Your task to perform on an android device: toggle airplane mode Image 0: 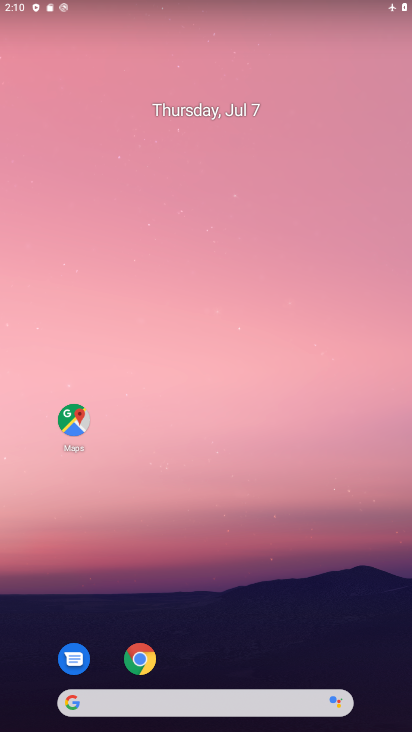
Step 0: drag from (232, 623) to (129, 91)
Your task to perform on an android device: toggle airplane mode Image 1: 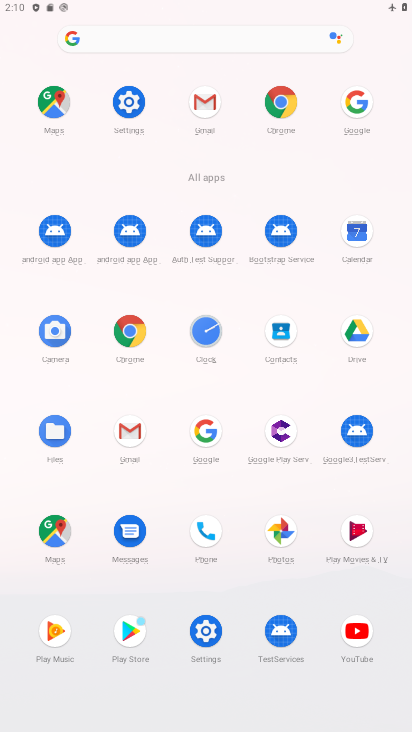
Step 1: click (123, 109)
Your task to perform on an android device: toggle airplane mode Image 2: 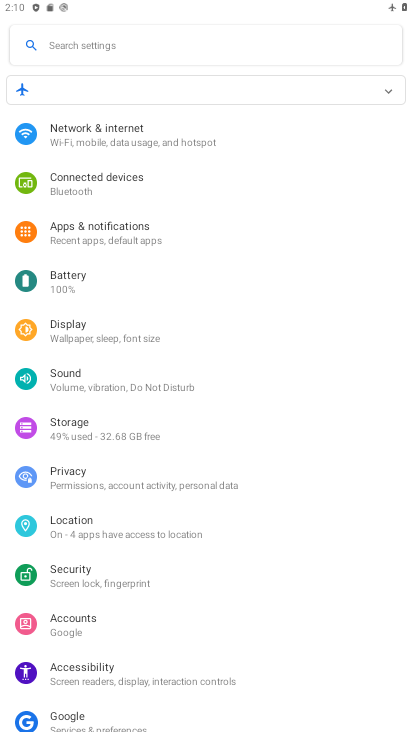
Step 2: click (117, 125)
Your task to perform on an android device: toggle airplane mode Image 3: 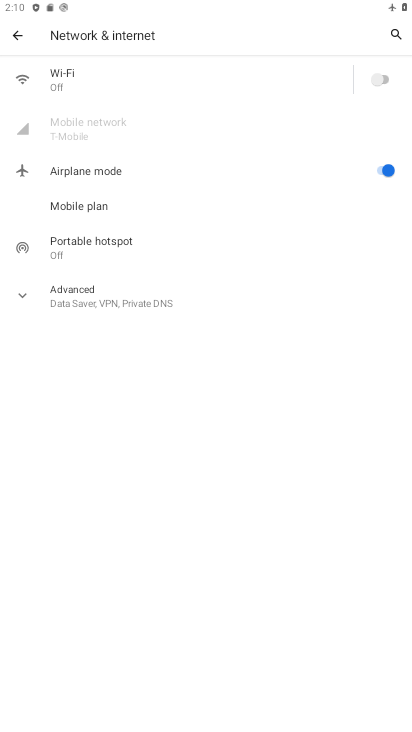
Step 3: click (385, 171)
Your task to perform on an android device: toggle airplane mode Image 4: 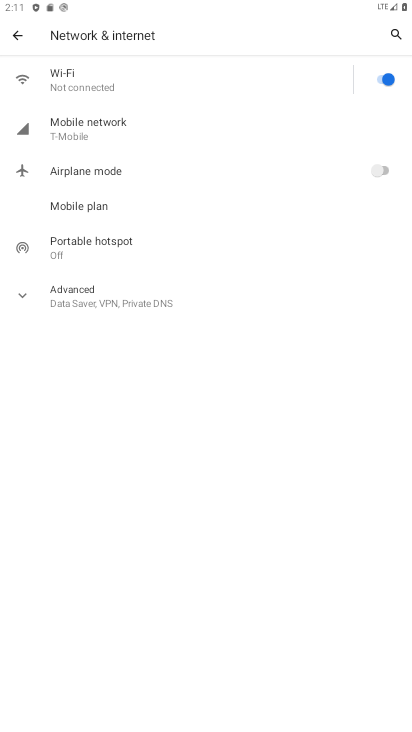
Step 4: task complete